Your task to perform on an android device: turn on data saver in the chrome app Image 0: 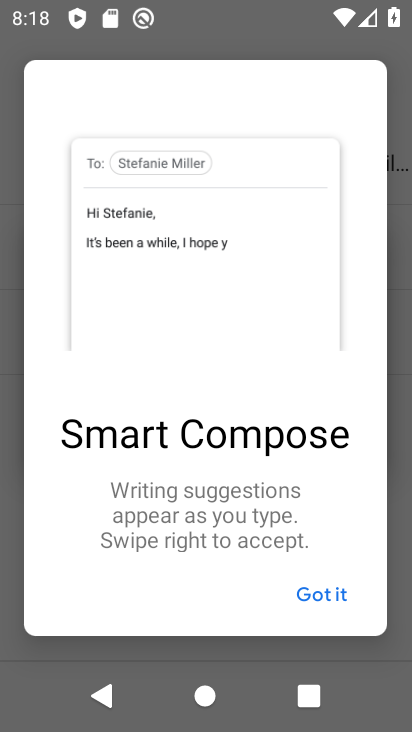
Step 0: press home button
Your task to perform on an android device: turn on data saver in the chrome app Image 1: 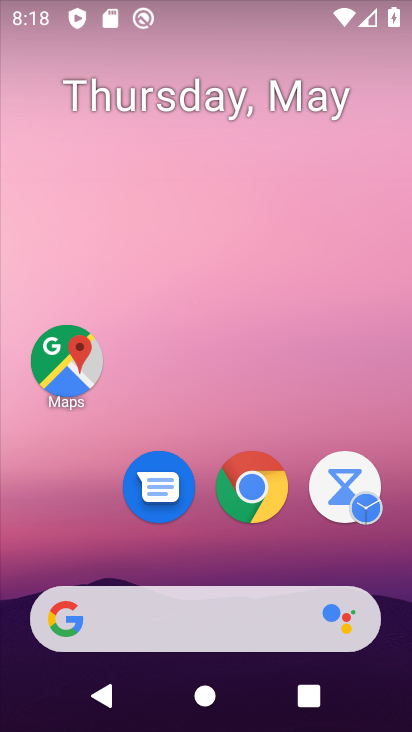
Step 1: drag from (383, 564) to (362, 184)
Your task to perform on an android device: turn on data saver in the chrome app Image 2: 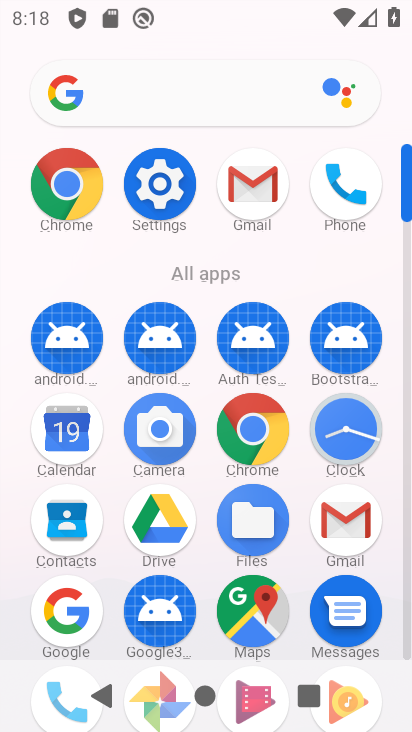
Step 2: click (279, 443)
Your task to perform on an android device: turn on data saver in the chrome app Image 3: 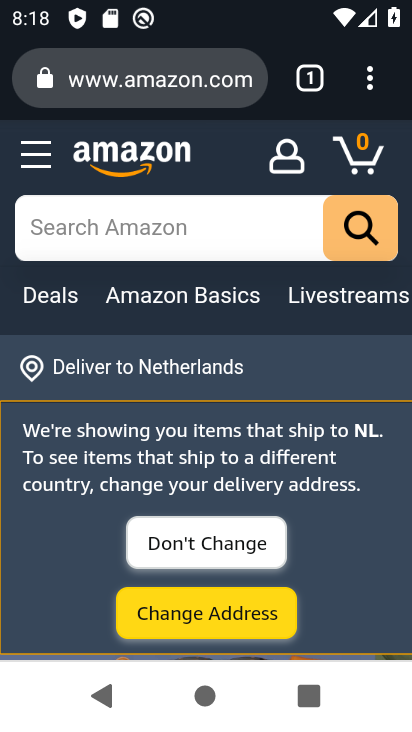
Step 3: click (367, 83)
Your task to perform on an android device: turn on data saver in the chrome app Image 4: 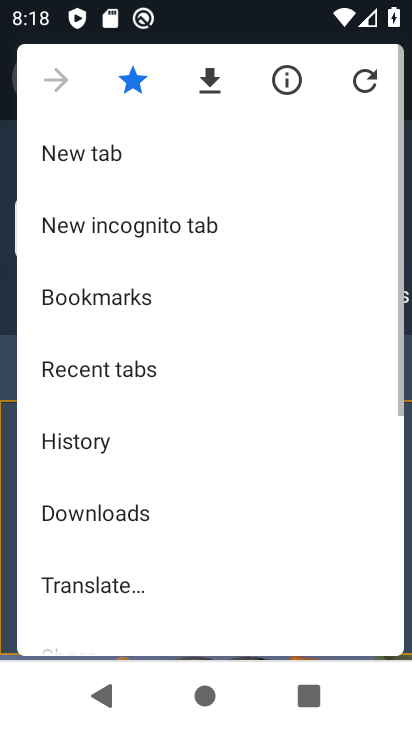
Step 4: drag from (282, 344) to (318, 255)
Your task to perform on an android device: turn on data saver in the chrome app Image 5: 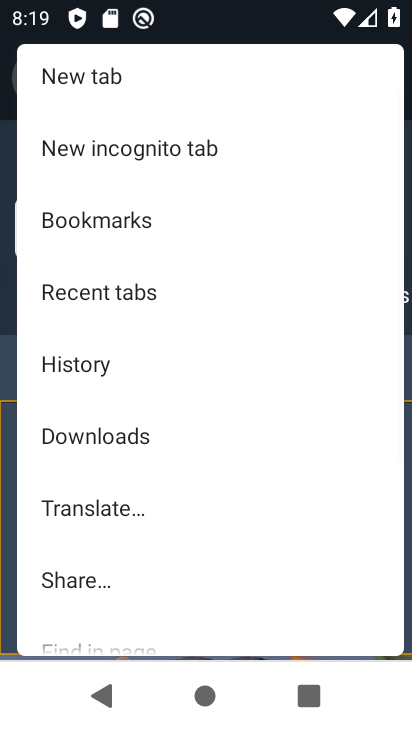
Step 5: drag from (321, 406) to (352, 284)
Your task to perform on an android device: turn on data saver in the chrome app Image 6: 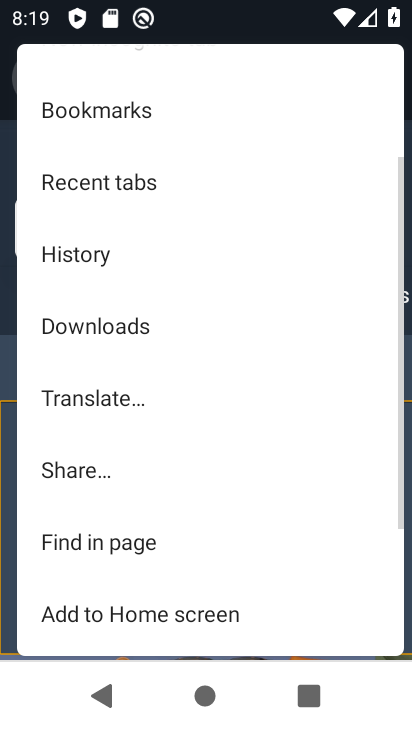
Step 6: drag from (314, 440) to (302, 330)
Your task to perform on an android device: turn on data saver in the chrome app Image 7: 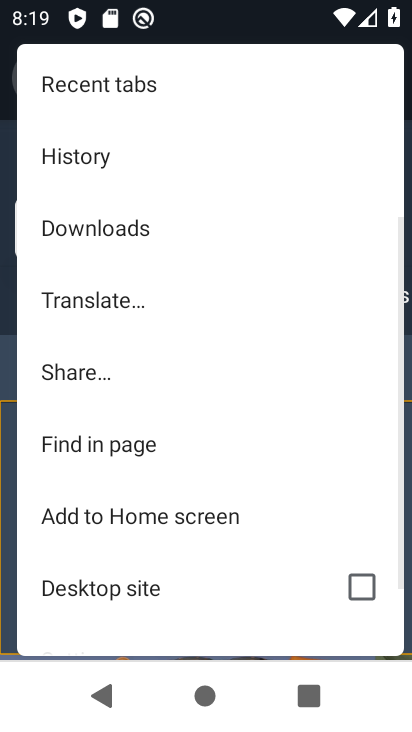
Step 7: drag from (296, 441) to (287, 324)
Your task to perform on an android device: turn on data saver in the chrome app Image 8: 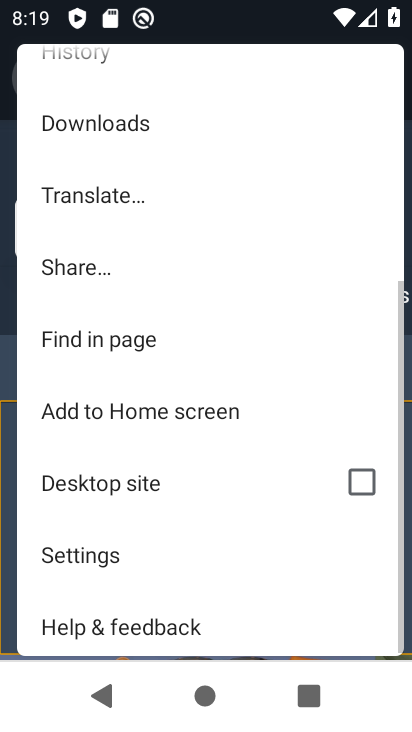
Step 8: drag from (281, 493) to (280, 385)
Your task to perform on an android device: turn on data saver in the chrome app Image 9: 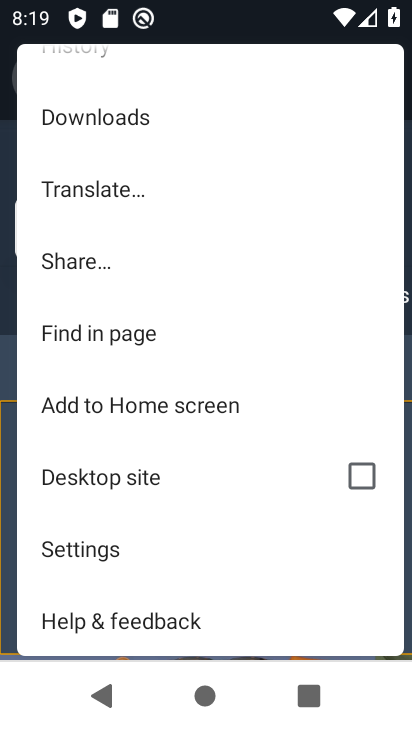
Step 9: click (126, 572)
Your task to perform on an android device: turn on data saver in the chrome app Image 10: 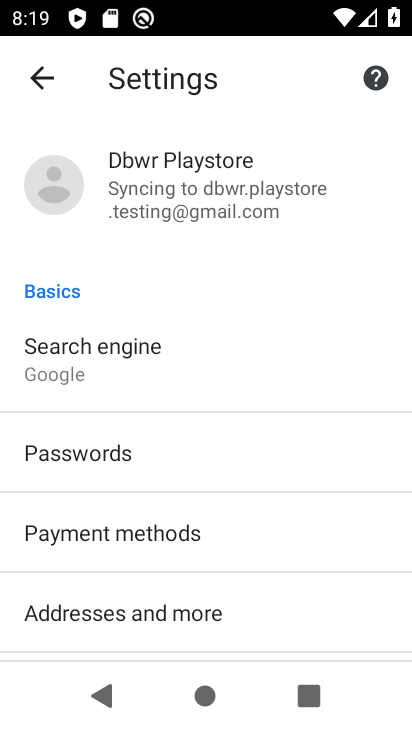
Step 10: drag from (329, 542) to (338, 461)
Your task to perform on an android device: turn on data saver in the chrome app Image 11: 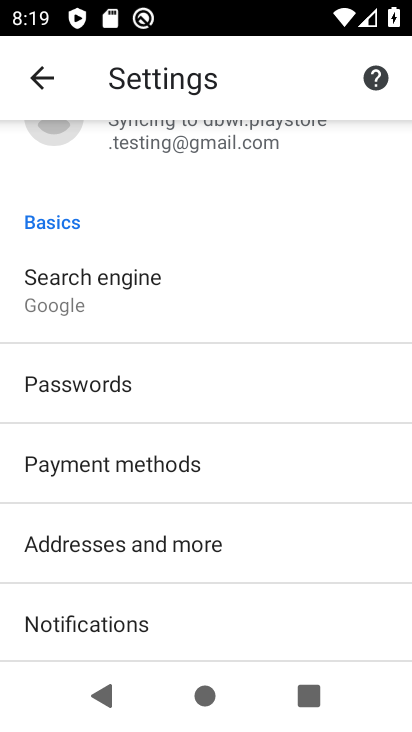
Step 11: drag from (329, 584) to (340, 465)
Your task to perform on an android device: turn on data saver in the chrome app Image 12: 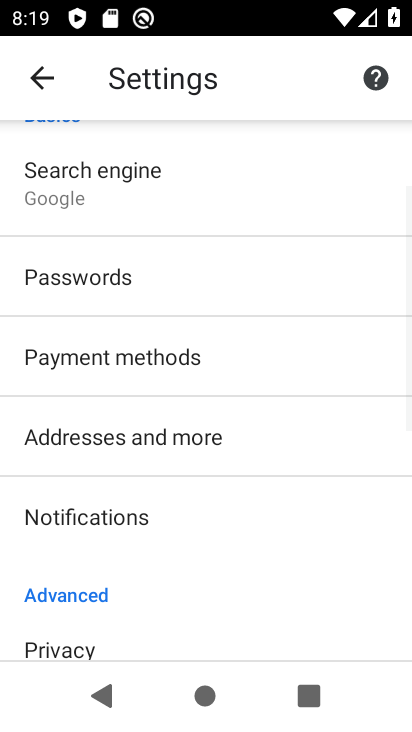
Step 12: drag from (331, 592) to (331, 486)
Your task to perform on an android device: turn on data saver in the chrome app Image 13: 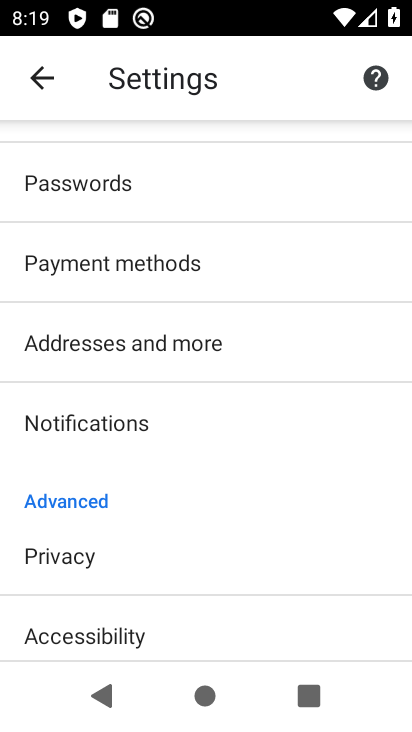
Step 13: drag from (317, 595) to (304, 497)
Your task to perform on an android device: turn on data saver in the chrome app Image 14: 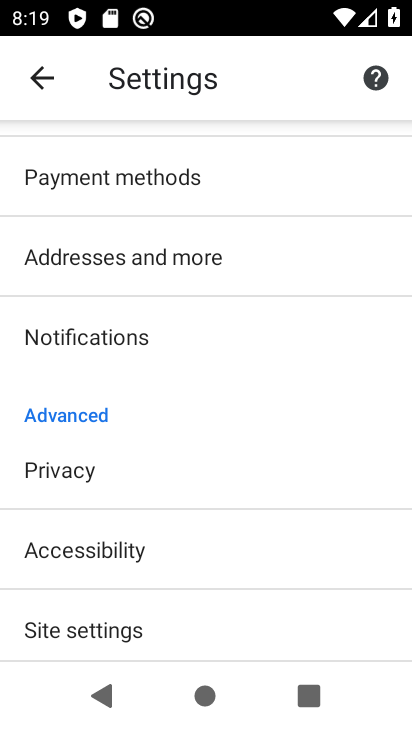
Step 14: drag from (295, 619) to (302, 532)
Your task to perform on an android device: turn on data saver in the chrome app Image 15: 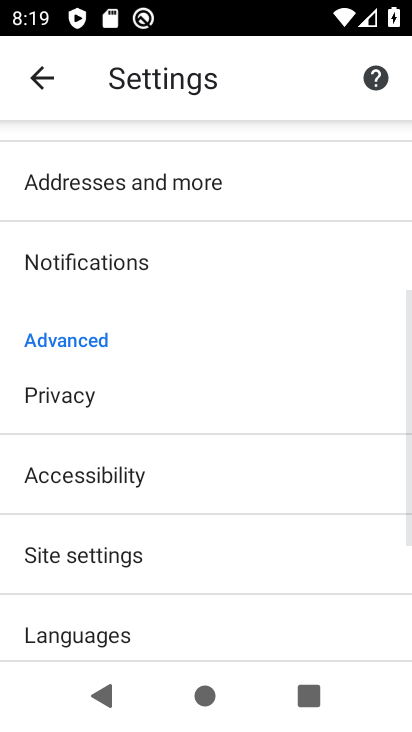
Step 15: drag from (305, 617) to (302, 551)
Your task to perform on an android device: turn on data saver in the chrome app Image 16: 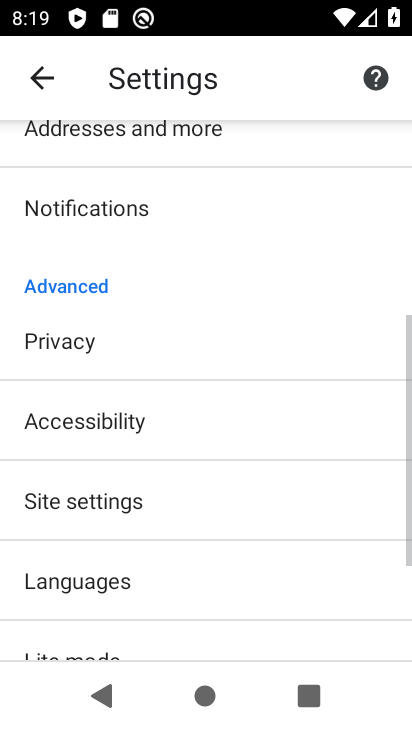
Step 16: drag from (300, 622) to (306, 537)
Your task to perform on an android device: turn on data saver in the chrome app Image 17: 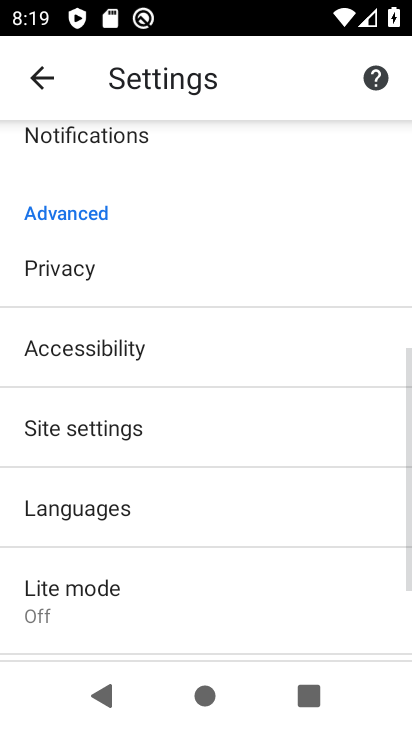
Step 17: drag from (315, 625) to (301, 529)
Your task to perform on an android device: turn on data saver in the chrome app Image 18: 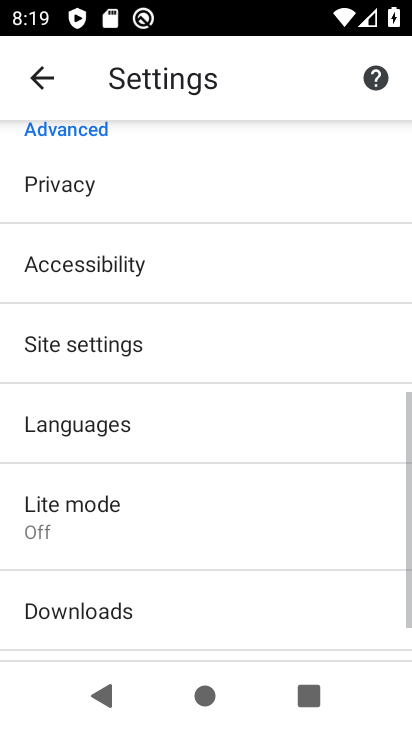
Step 18: drag from (293, 628) to (292, 541)
Your task to perform on an android device: turn on data saver in the chrome app Image 19: 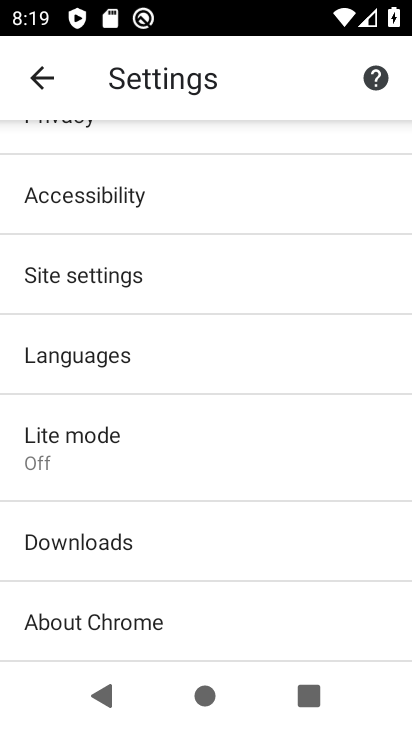
Step 19: drag from (303, 633) to (302, 527)
Your task to perform on an android device: turn on data saver in the chrome app Image 20: 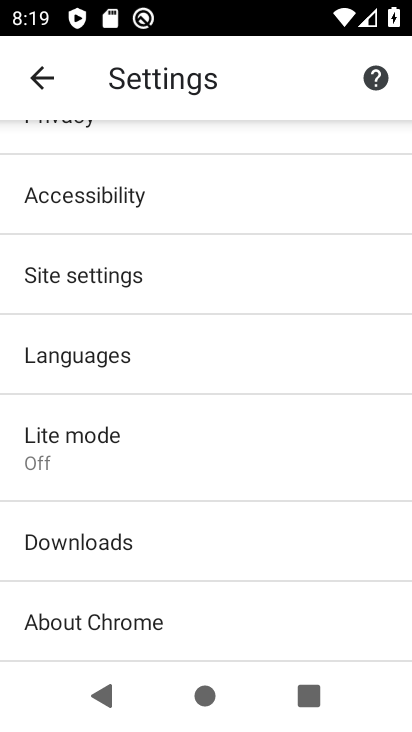
Step 20: click (258, 444)
Your task to perform on an android device: turn on data saver in the chrome app Image 21: 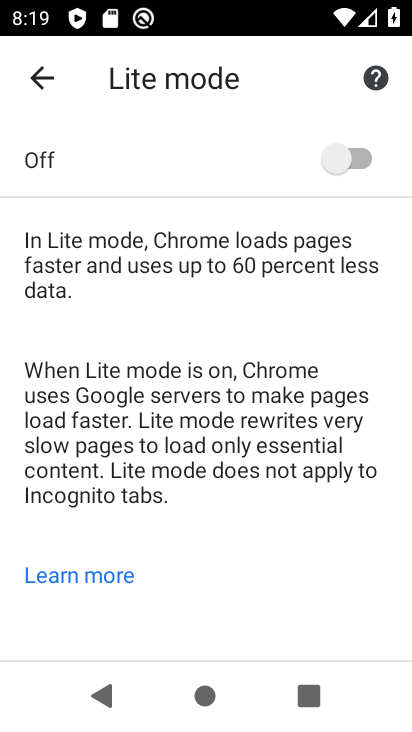
Step 21: click (349, 143)
Your task to perform on an android device: turn on data saver in the chrome app Image 22: 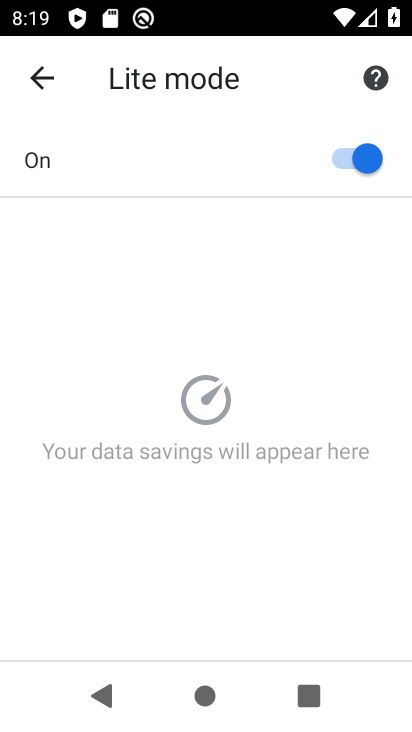
Step 22: task complete